Your task to perform on an android device: Toggle the flashlight Image 0: 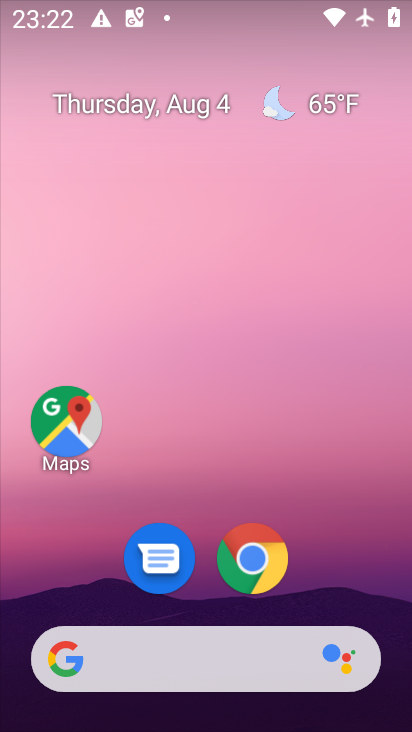
Step 0: drag from (336, 575) to (240, 66)
Your task to perform on an android device: Toggle the flashlight Image 1: 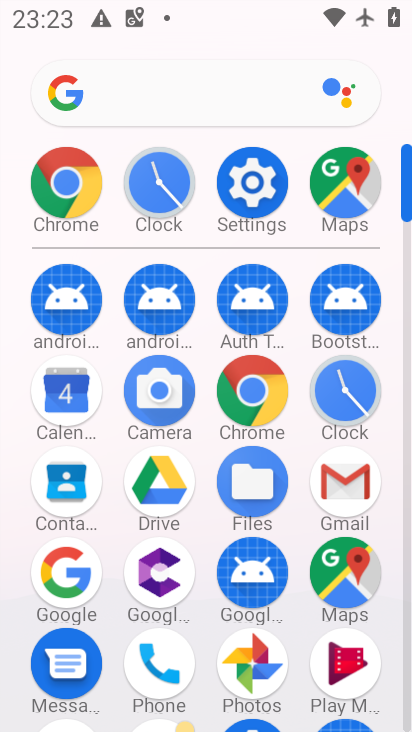
Step 1: drag from (296, 520) to (291, 104)
Your task to perform on an android device: Toggle the flashlight Image 2: 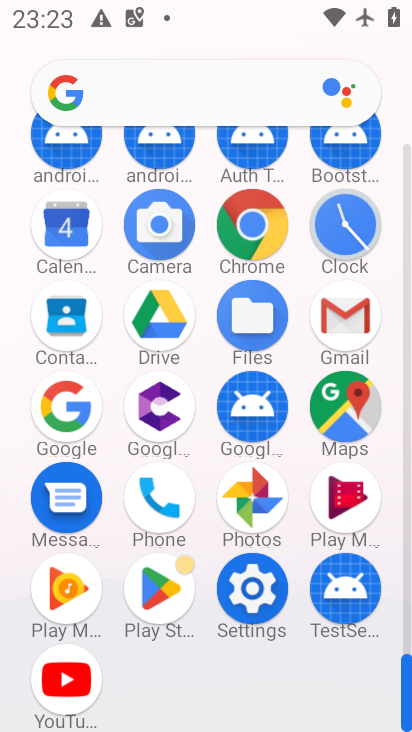
Step 2: click (254, 579)
Your task to perform on an android device: Toggle the flashlight Image 3: 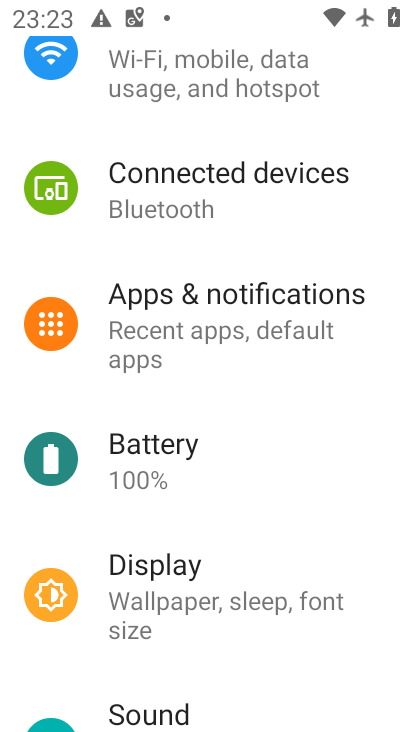
Step 3: click (140, 540)
Your task to perform on an android device: Toggle the flashlight Image 4: 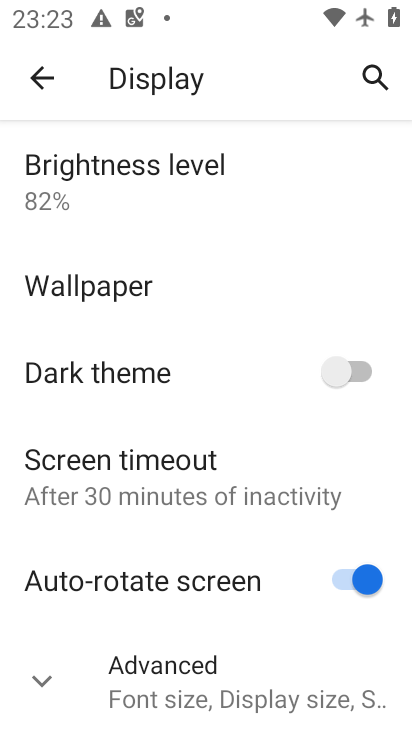
Step 4: click (182, 480)
Your task to perform on an android device: Toggle the flashlight Image 5: 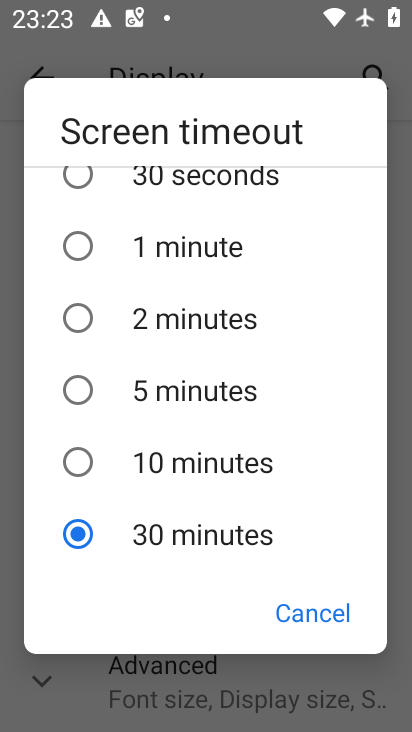
Step 5: task complete